Your task to perform on an android device: Check the news Image 0: 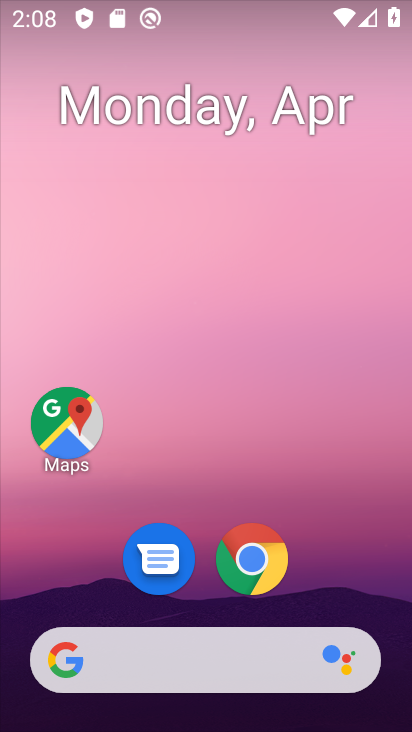
Step 0: click (251, 575)
Your task to perform on an android device: Check the news Image 1: 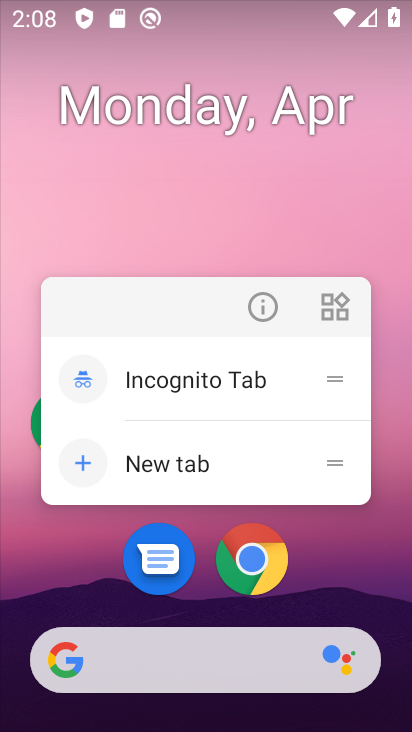
Step 1: click (254, 558)
Your task to perform on an android device: Check the news Image 2: 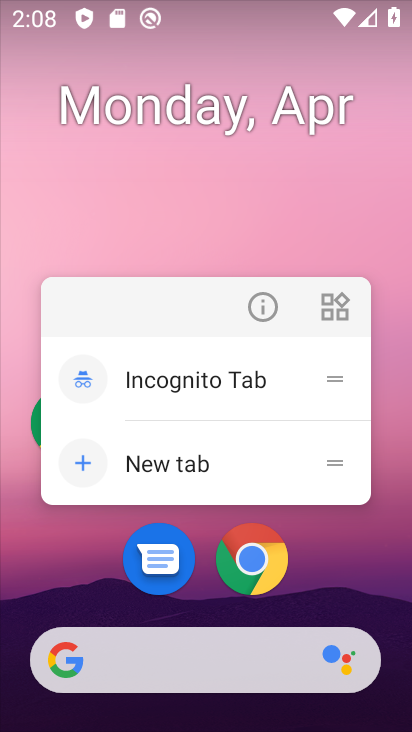
Step 2: click (255, 557)
Your task to perform on an android device: Check the news Image 3: 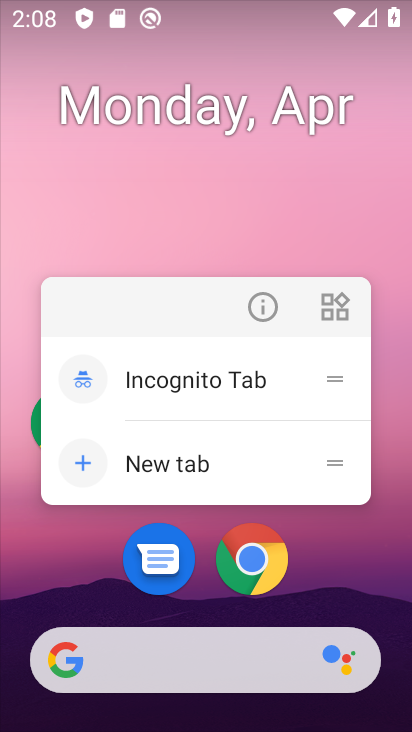
Step 3: click (255, 557)
Your task to perform on an android device: Check the news Image 4: 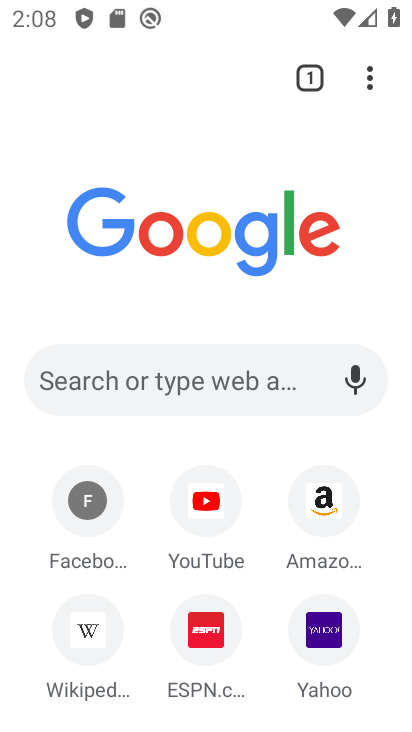
Step 4: click (170, 376)
Your task to perform on an android device: Check the news Image 5: 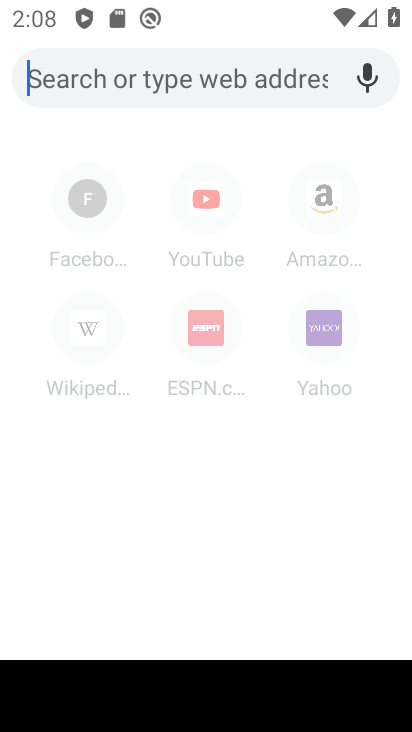
Step 5: type "news"
Your task to perform on an android device: Check the news Image 6: 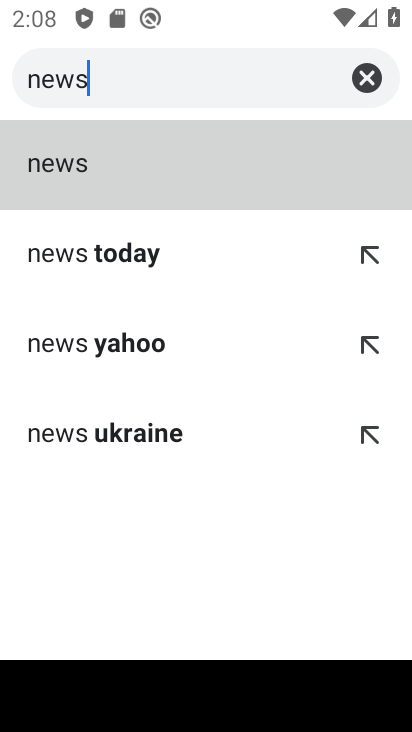
Step 6: click (56, 169)
Your task to perform on an android device: Check the news Image 7: 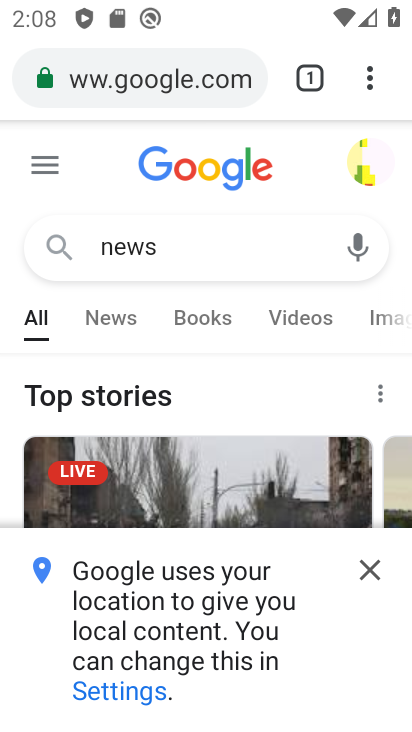
Step 7: click (113, 318)
Your task to perform on an android device: Check the news Image 8: 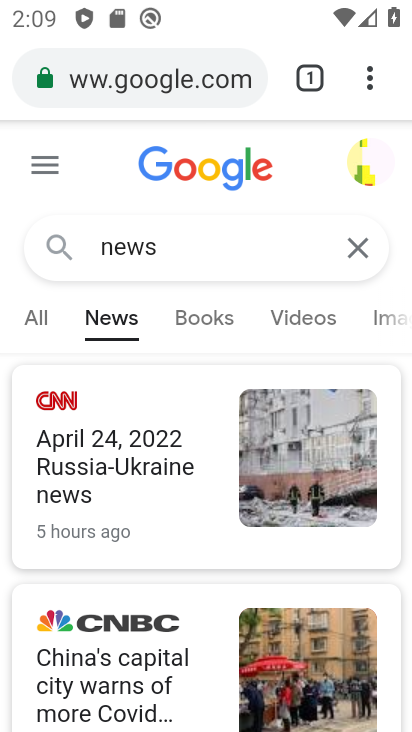
Step 8: task complete